Your task to perform on an android device: set the timer Image 0: 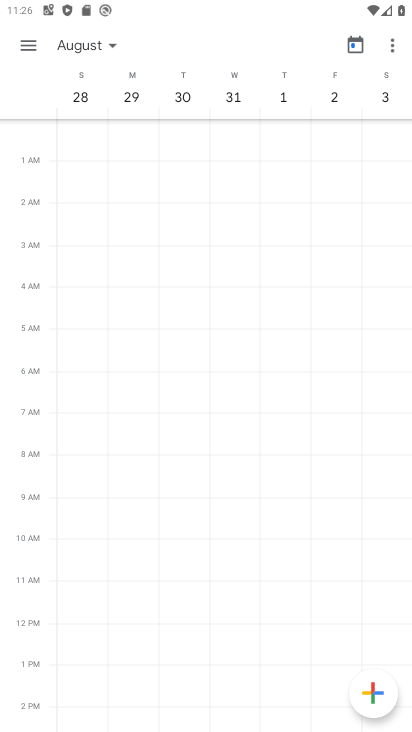
Step 0: press home button
Your task to perform on an android device: set the timer Image 1: 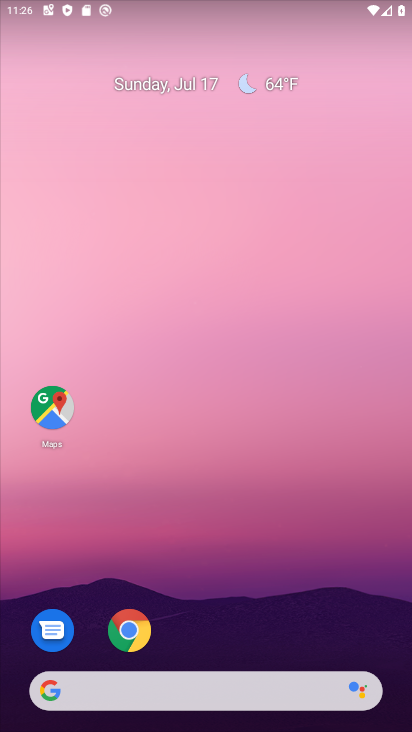
Step 1: drag from (353, 624) to (331, 41)
Your task to perform on an android device: set the timer Image 2: 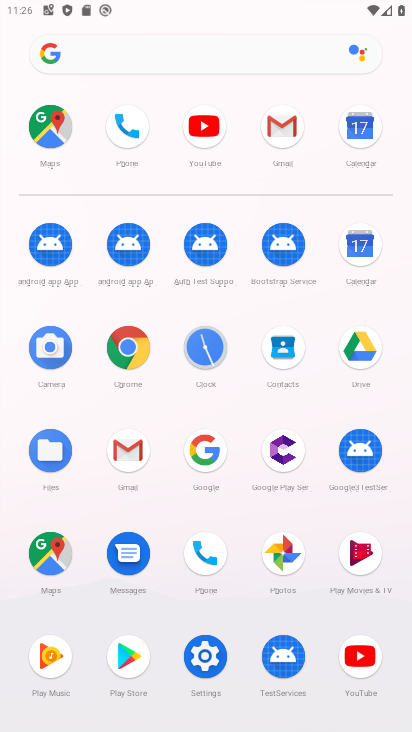
Step 2: click (205, 351)
Your task to perform on an android device: set the timer Image 3: 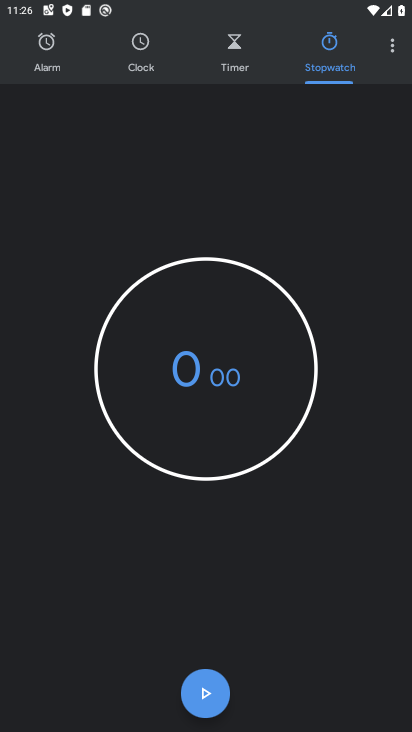
Step 3: click (236, 62)
Your task to perform on an android device: set the timer Image 4: 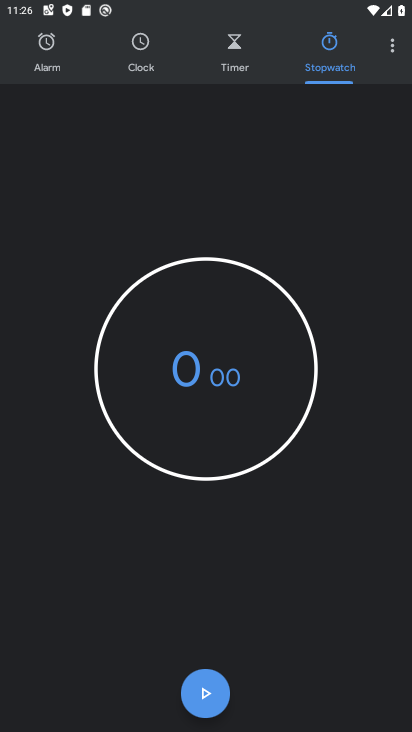
Step 4: click (234, 48)
Your task to perform on an android device: set the timer Image 5: 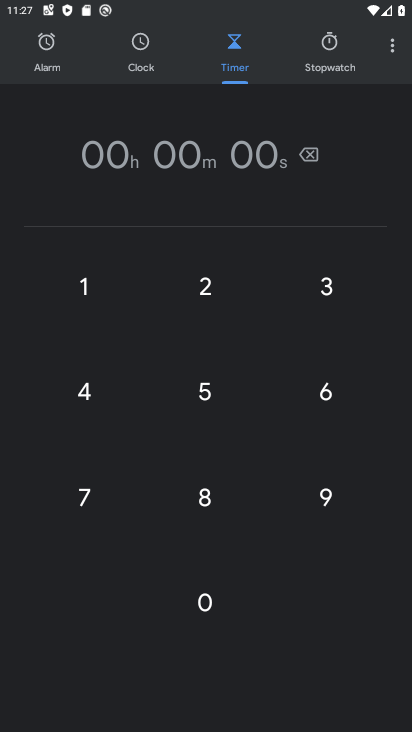
Step 5: click (91, 288)
Your task to perform on an android device: set the timer Image 6: 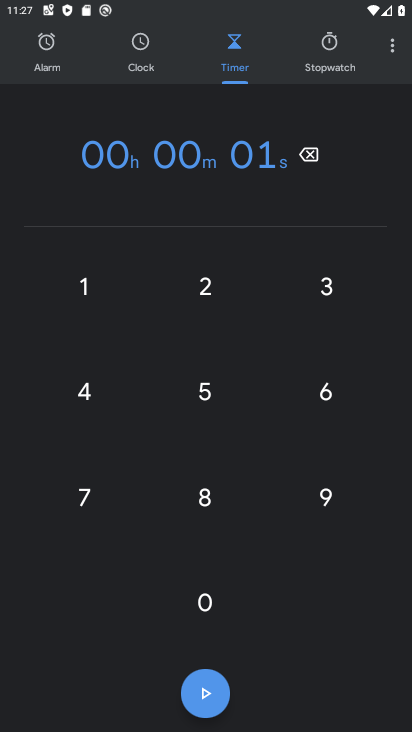
Step 6: click (330, 292)
Your task to perform on an android device: set the timer Image 7: 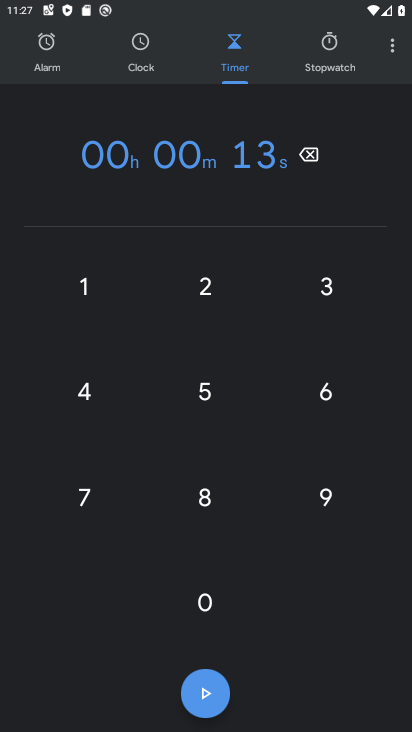
Step 7: click (208, 602)
Your task to perform on an android device: set the timer Image 8: 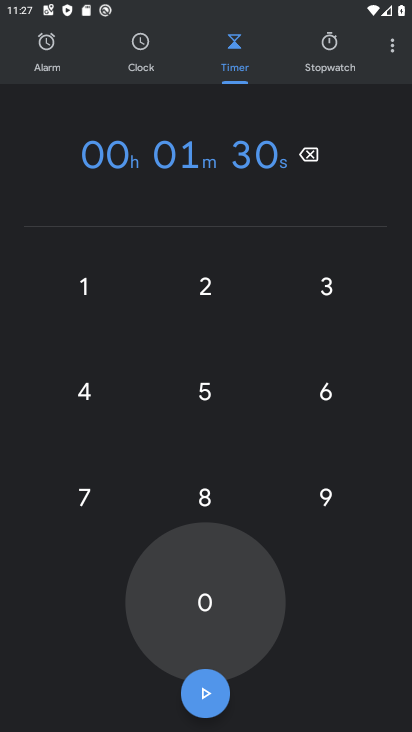
Step 8: click (208, 602)
Your task to perform on an android device: set the timer Image 9: 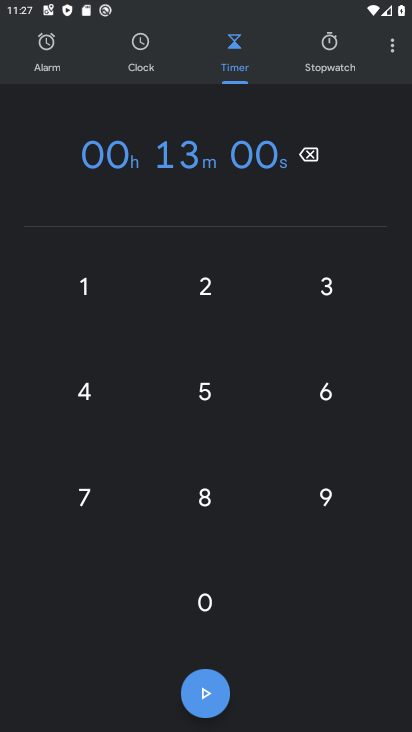
Step 9: click (208, 602)
Your task to perform on an android device: set the timer Image 10: 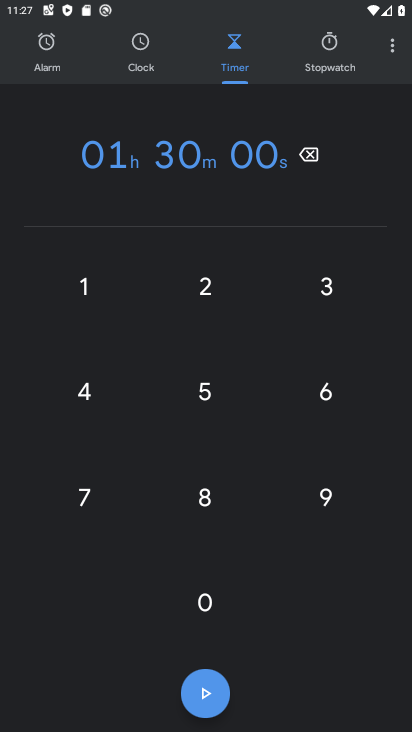
Step 10: task complete